Your task to perform on an android device: open chrome and create a bookmark for the current page Image 0: 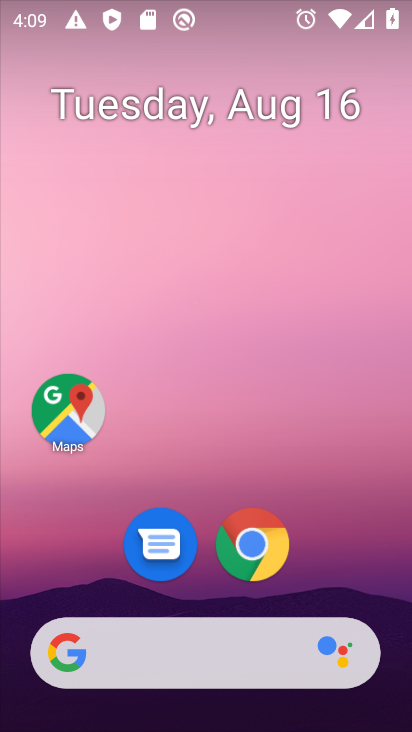
Step 0: click (253, 521)
Your task to perform on an android device: open chrome and create a bookmark for the current page Image 1: 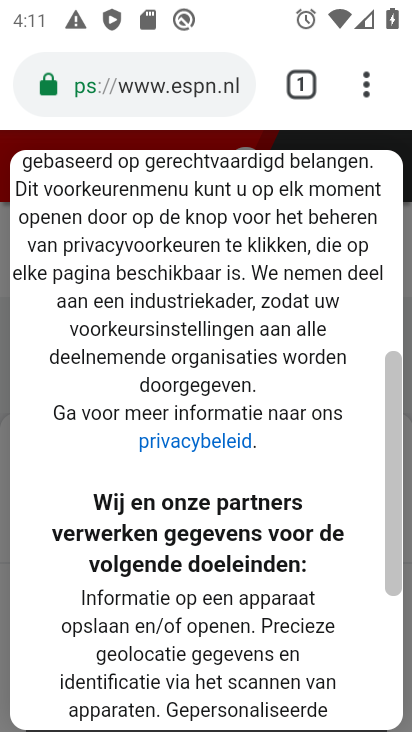
Step 1: click (378, 84)
Your task to perform on an android device: open chrome and create a bookmark for the current page Image 2: 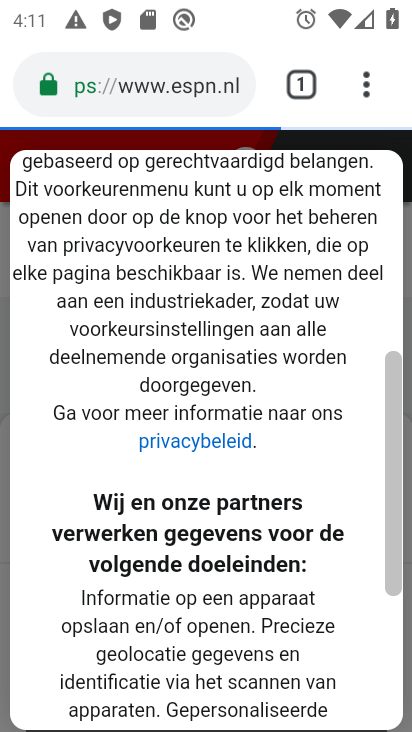
Step 2: click (378, 84)
Your task to perform on an android device: open chrome and create a bookmark for the current page Image 3: 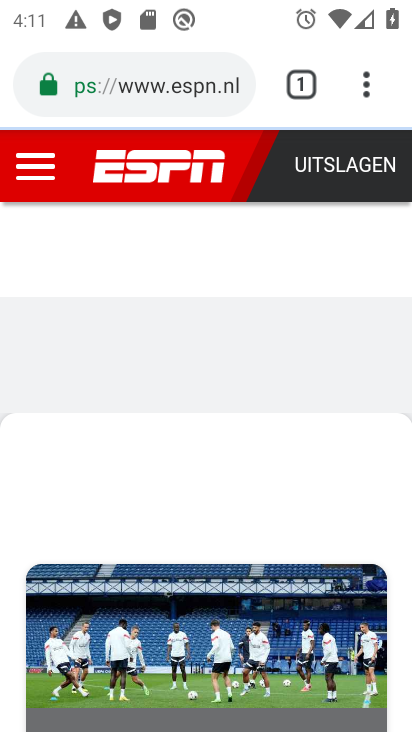
Step 3: click (375, 85)
Your task to perform on an android device: open chrome and create a bookmark for the current page Image 4: 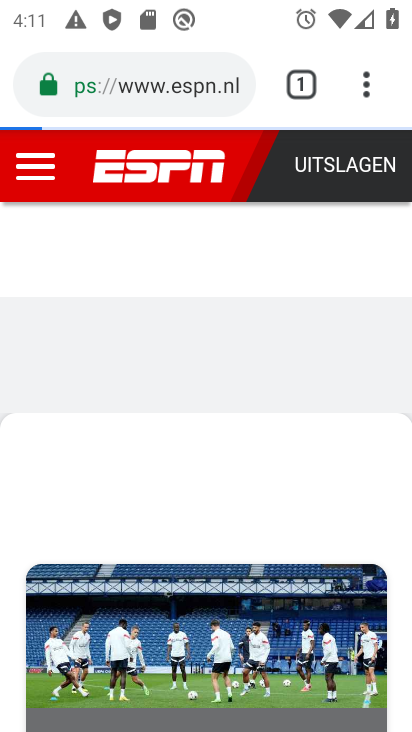
Step 4: click (135, 84)
Your task to perform on an android device: open chrome and create a bookmark for the current page Image 5: 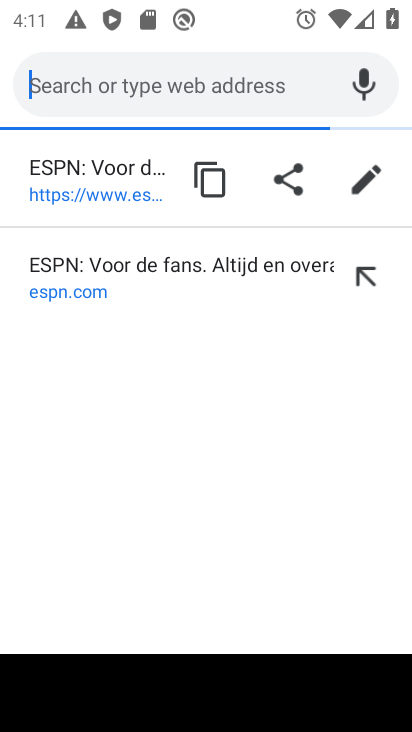
Step 5: task complete